Your task to perform on an android device: turn on priority inbox in the gmail app Image 0: 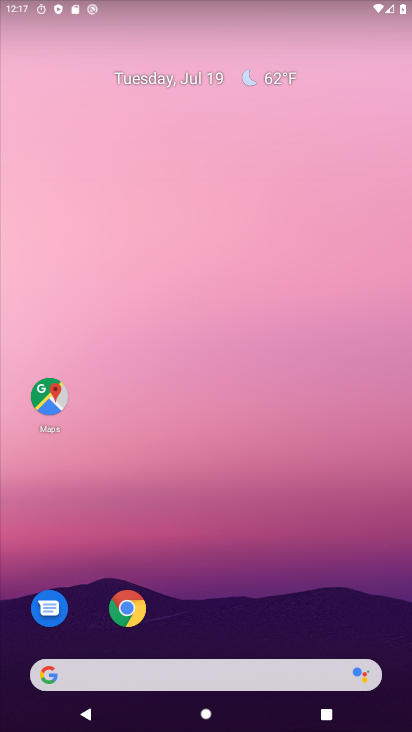
Step 0: press home button
Your task to perform on an android device: turn on priority inbox in the gmail app Image 1: 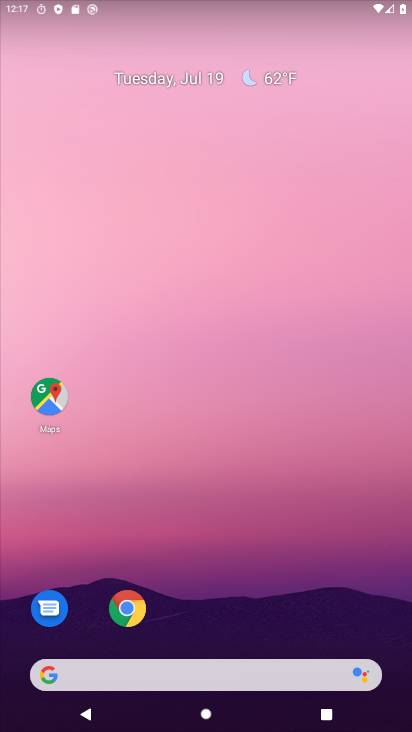
Step 1: drag from (210, 649) to (239, 0)
Your task to perform on an android device: turn on priority inbox in the gmail app Image 2: 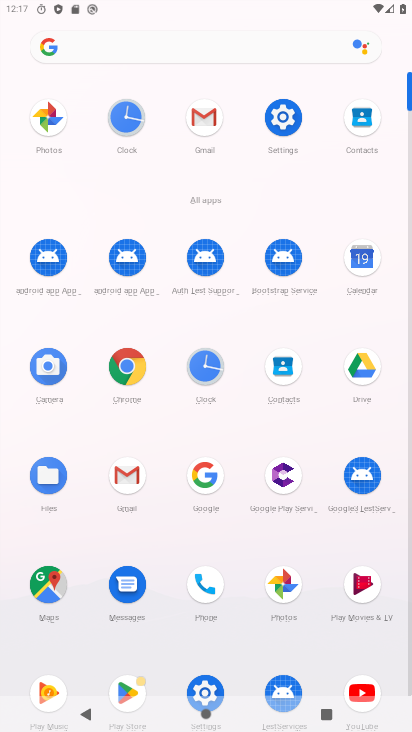
Step 2: click (123, 467)
Your task to perform on an android device: turn on priority inbox in the gmail app Image 3: 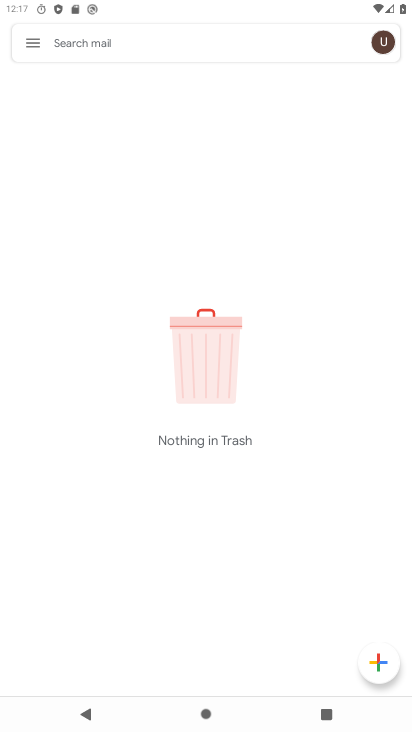
Step 3: click (31, 42)
Your task to perform on an android device: turn on priority inbox in the gmail app Image 4: 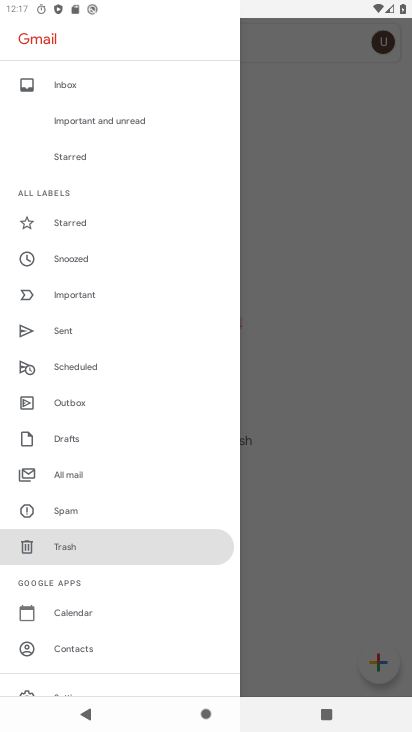
Step 4: drag from (113, 636) to (112, 147)
Your task to perform on an android device: turn on priority inbox in the gmail app Image 5: 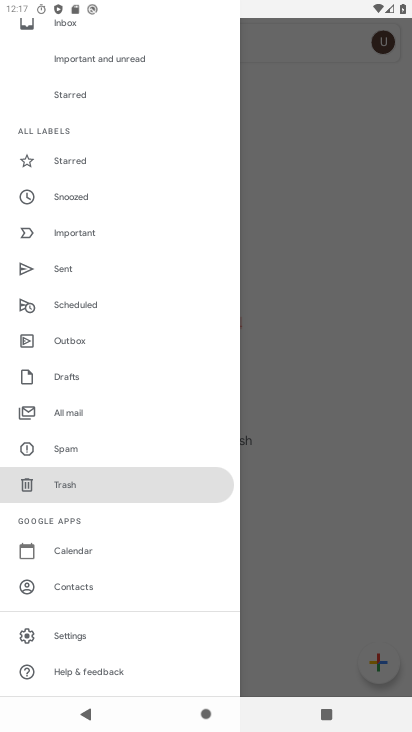
Step 5: click (93, 632)
Your task to perform on an android device: turn on priority inbox in the gmail app Image 6: 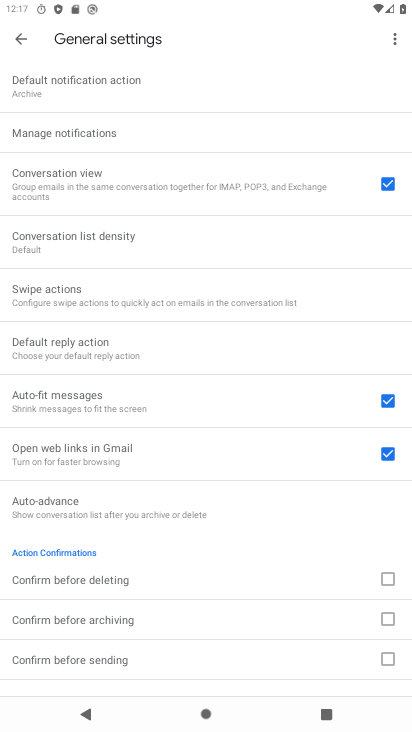
Step 6: click (24, 41)
Your task to perform on an android device: turn on priority inbox in the gmail app Image 7: 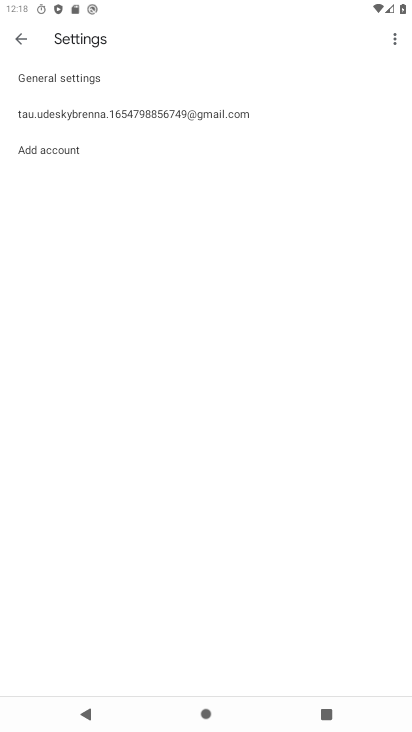
Step 7: click (82, 111)
Your task to perform on an android device: turn on priority inbox in the gmail app Image 8: 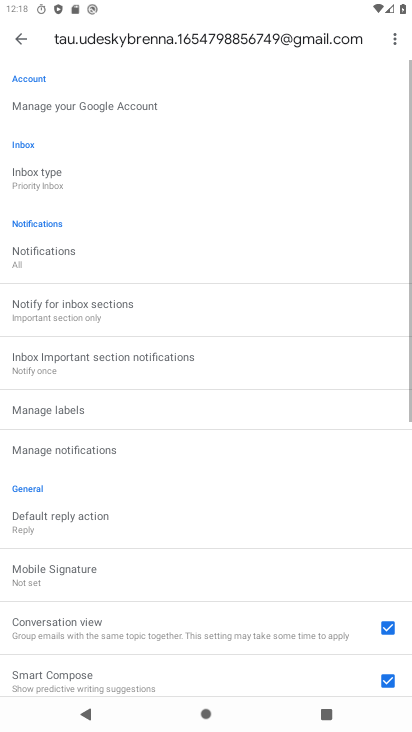
Step 8: click (45, 184)
Your task to perform on an android device: turn on priority inbox in the gmail app Image 9: 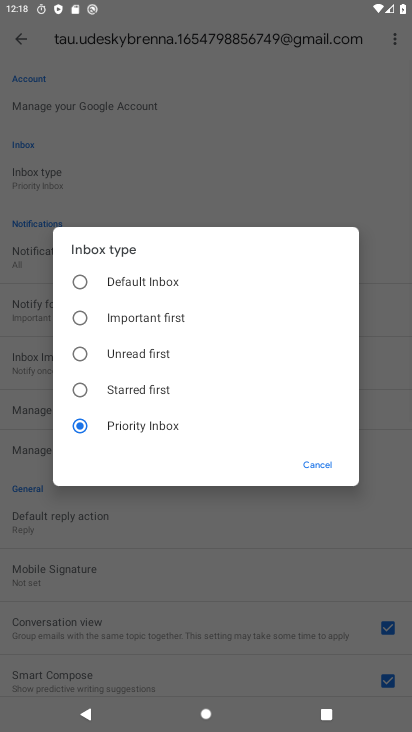
Step 9: click (86, 420)
Your task to perform on an android device: turn on priority inbox in the gmail app Image 10: 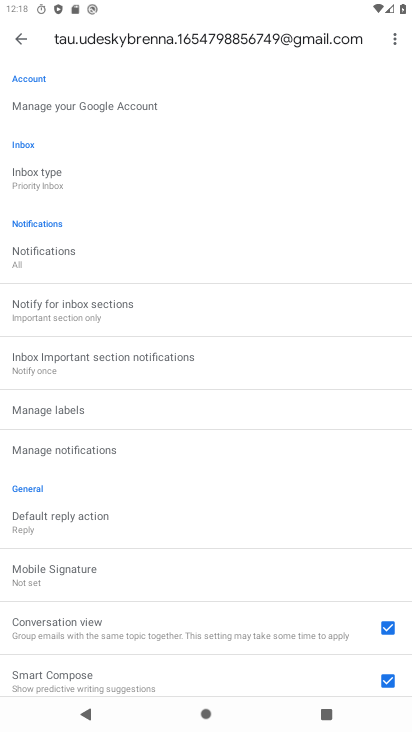
Step 10: task complete